Your task to perform on an android device: Search for apple airpods pro on ebay, select the first entry, and add it to the cart. Image 0: 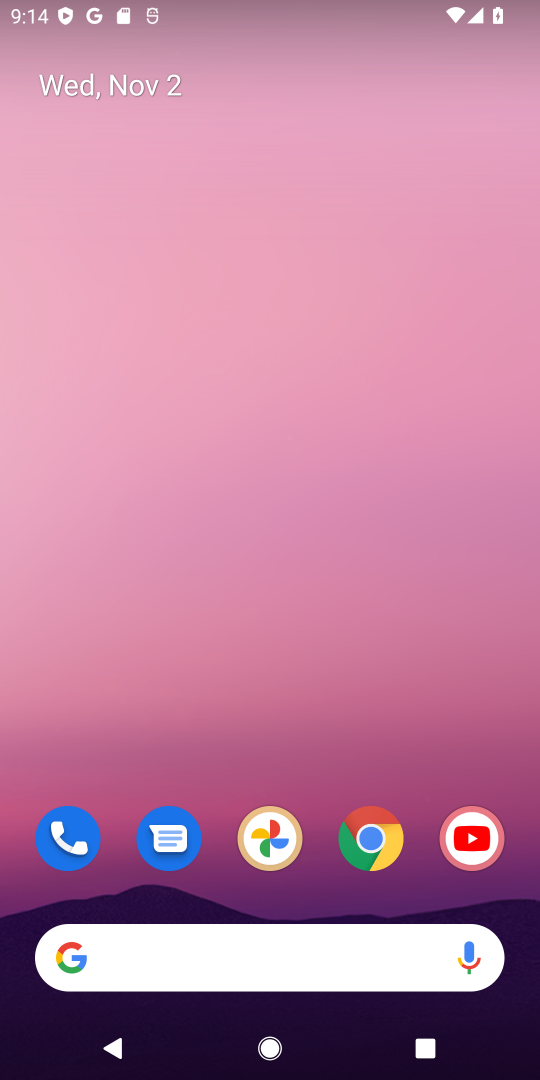
Step 0: click (369, 839)
Your task to perform on an android device: Search for apple airpods pro on ebay, select the first entry, and add it to the cart. Image 1: 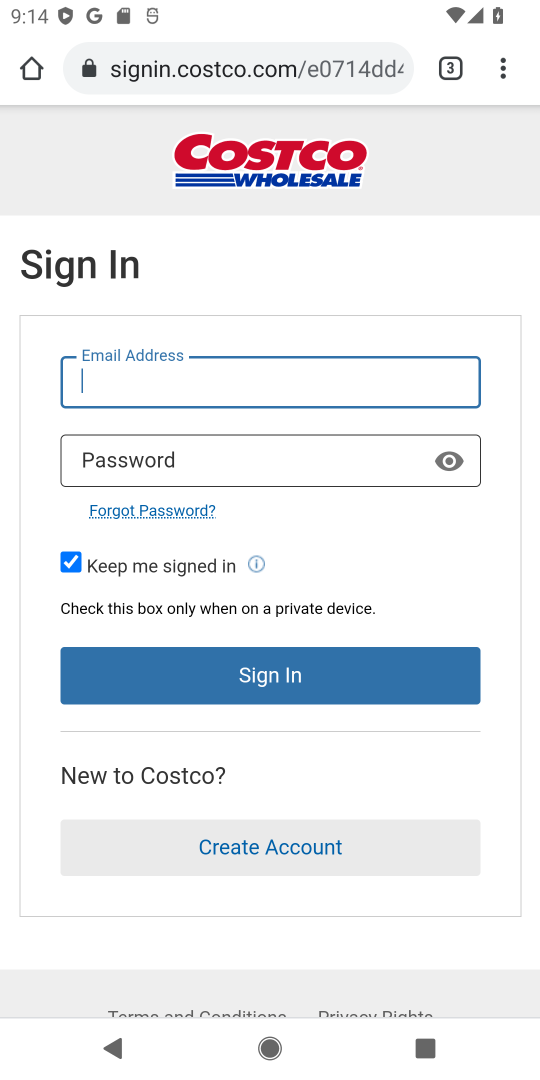
Step 1: click (450, 71)
Your task to perform on an android device: Search for apple airpods pro on ebay, select the first entry, and add it to the cart. Image 2: 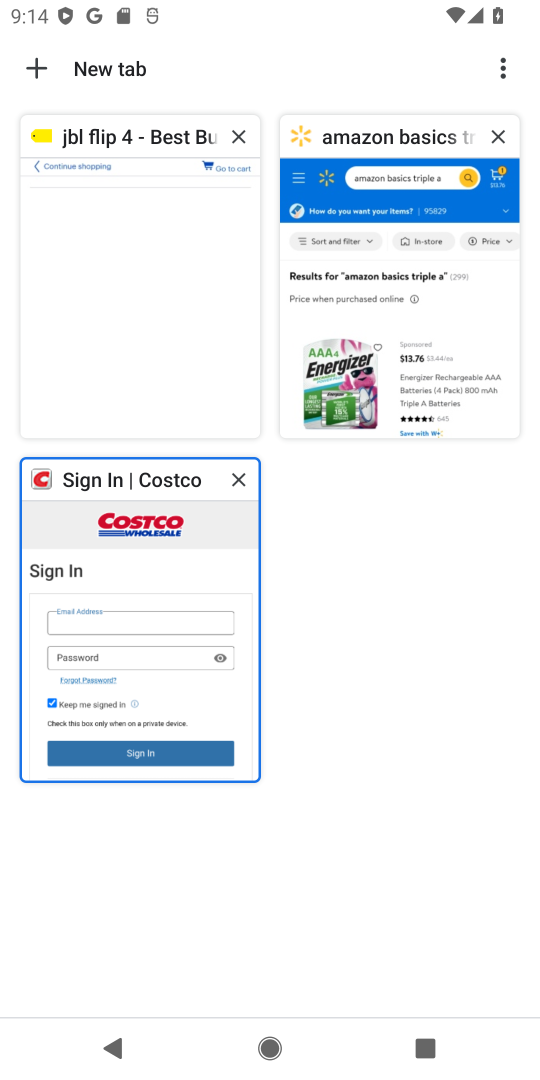
Step 2: click (29, 62)
Your task to perform on an android device: Search for apple airpods pro on ebay, select the first entry, and add it to the cart. Image 3: 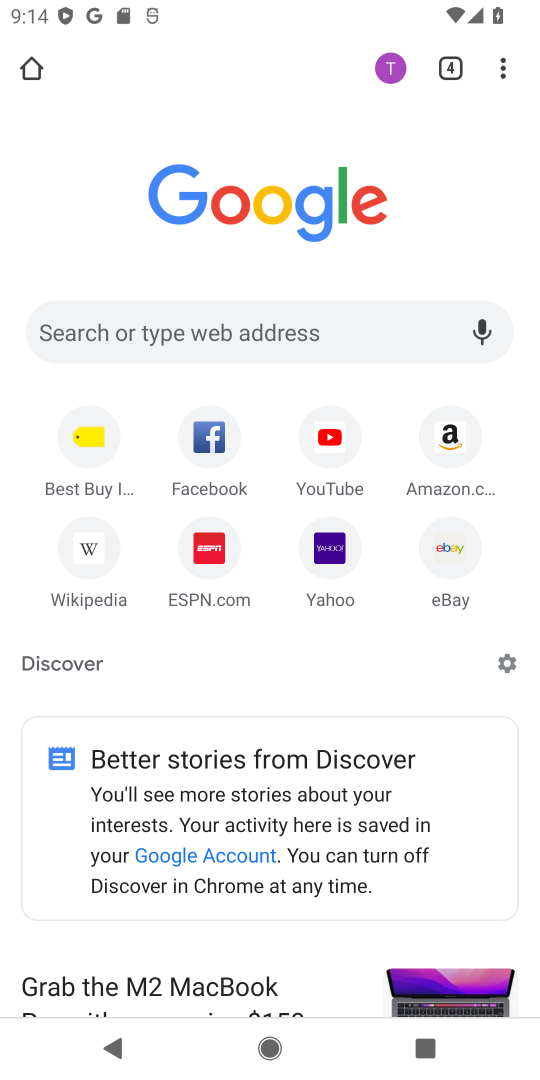
Step 3: click (442, 558)
Your task to perform on an android device: Search for apple airpods pro on ebay, select the first entry, and add it to the cart. Image 4: 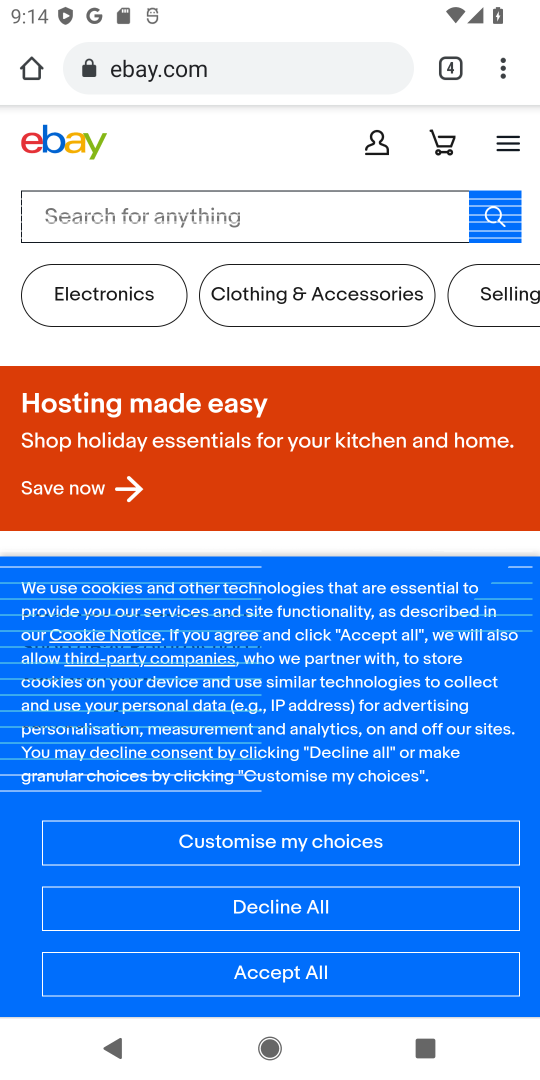
Step 4: click (306, 905)
Your task to perform on an android device: Search for apple airpods pro on ebay, select the first entry, and add it to the cart. Image 5: 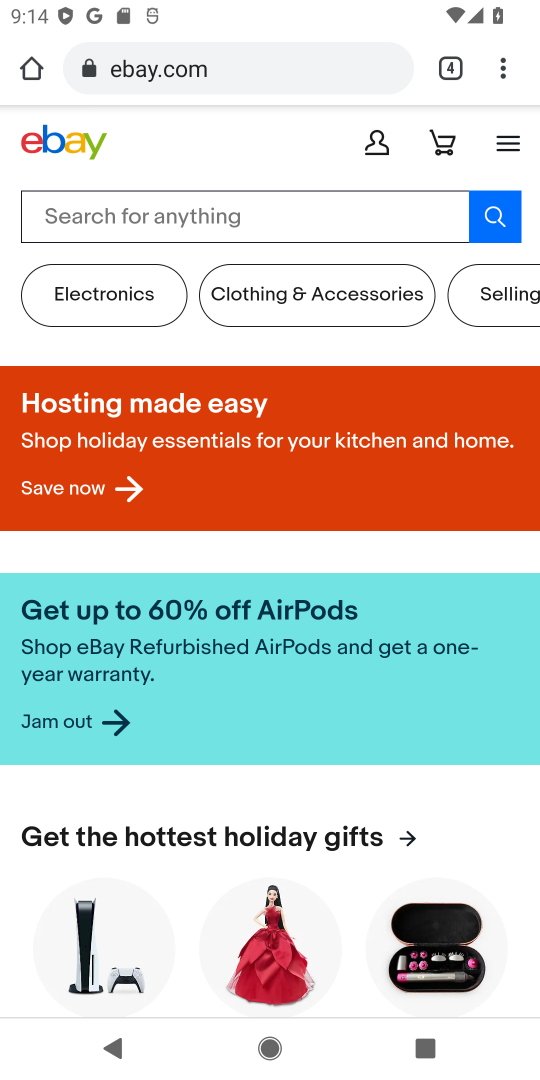
Step 5: click (182, 215)
Your task to perform on an android device: Search for apple airpods pro on ebay, select the first entry, and add it to the cart. Image 6: 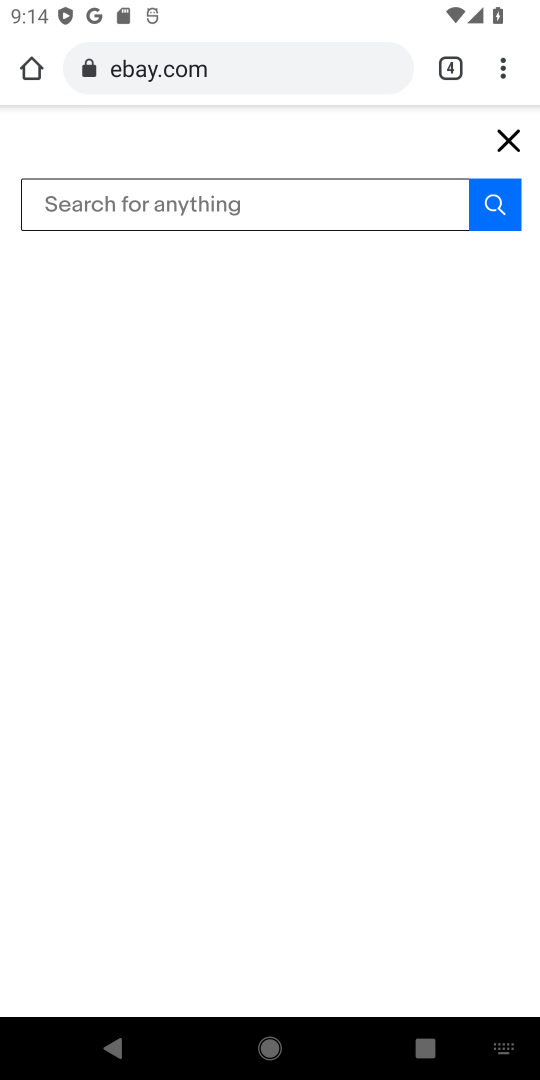
Step 6: type "apple airpods pro"
Your task to perform on an android device: Search for apple airpods pro on ebay, select the first entry, and add it to the cart. Image 7: 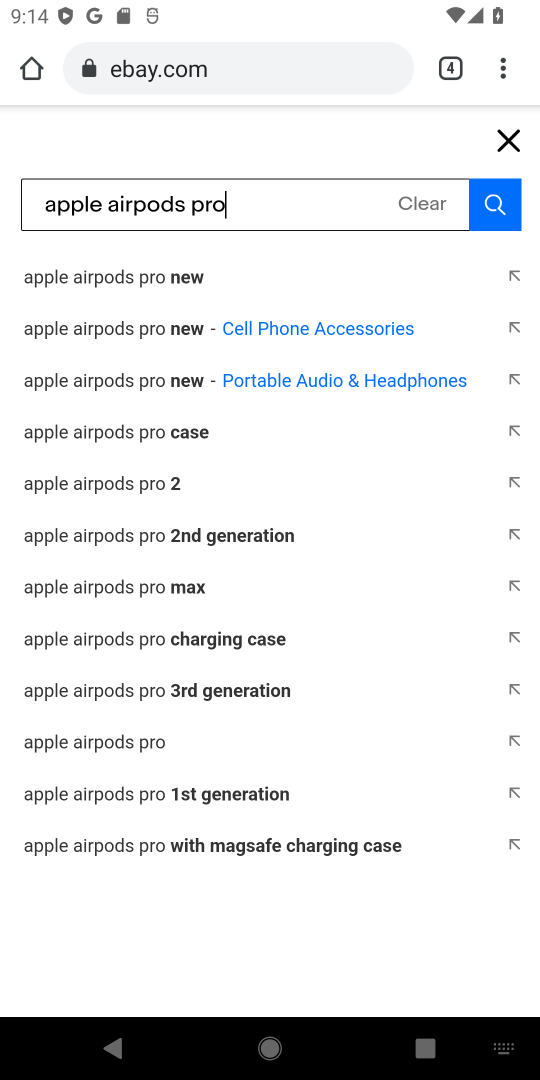
Step 7: click (141, 329)
Your task to perform on an android device: Search for apple airpods pro on ebay, select the first entry, and add it to the cart. Image 8: 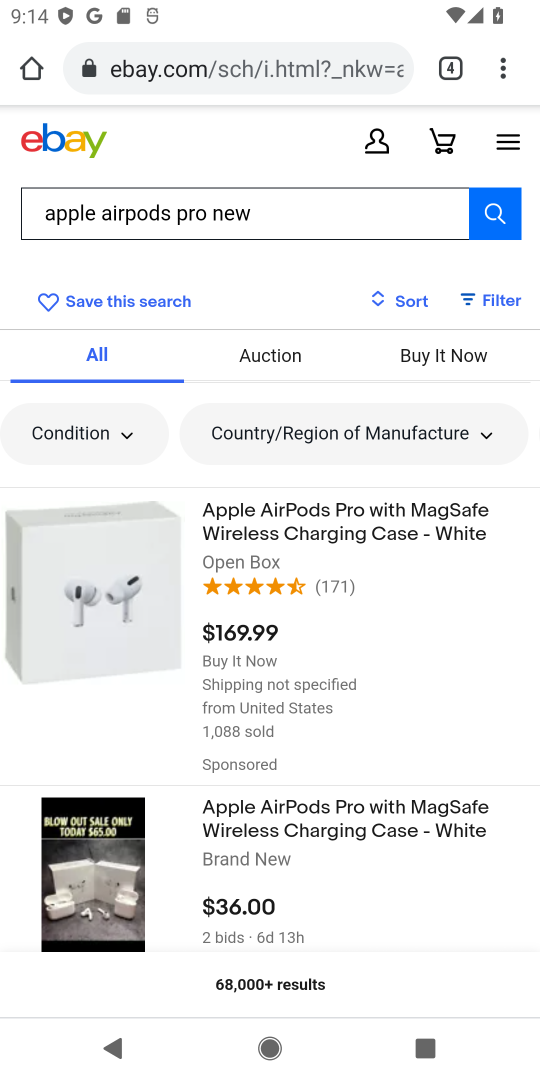
Step 8: click (360, 518)
Your task to perform on an android device: Search for apple airpods pro on ebay, select the first entry, and add it to the cart. Image 9: 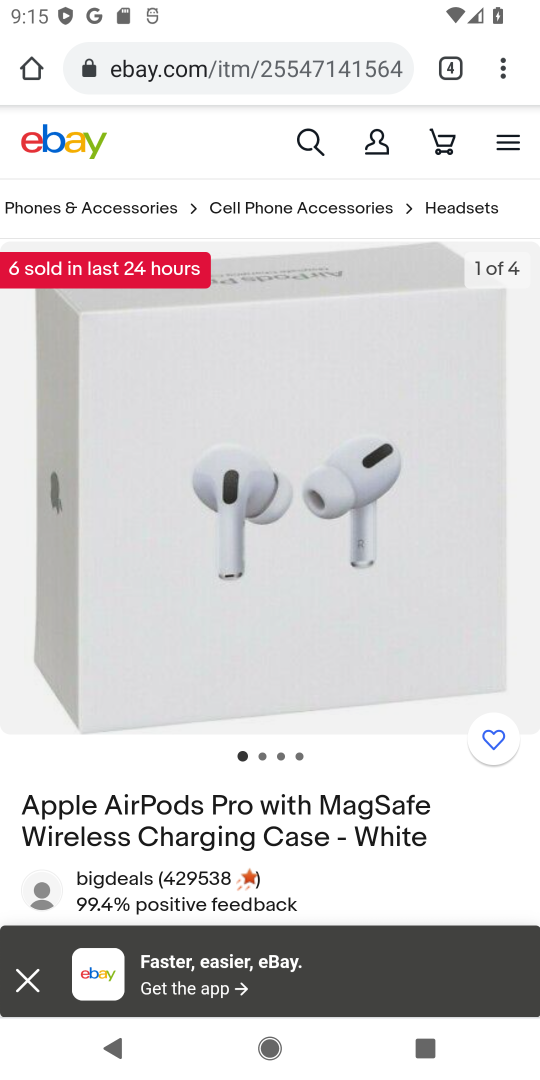
Step 9: drag from (368, 916) to (430, 193)
Your task to perform on an android device: Search for apple airpods pro on ebay, select the first entry, and add it to the cart. Image 10: 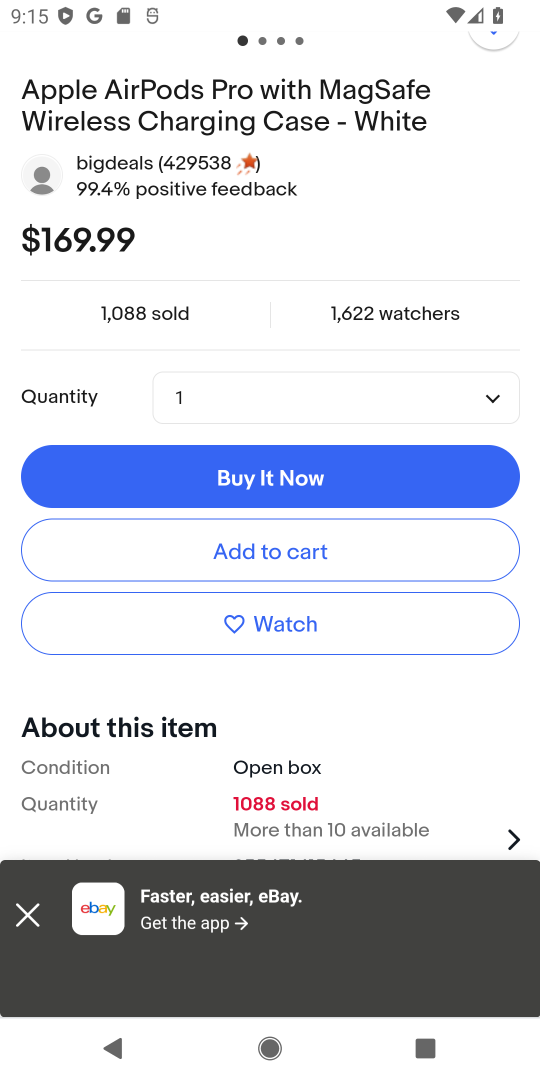
Step 10: click (262, 550)
Your task to perform on an android device: Search for apple airpods pro on ebay, select the first entry, and add it to the cart. Image 11: 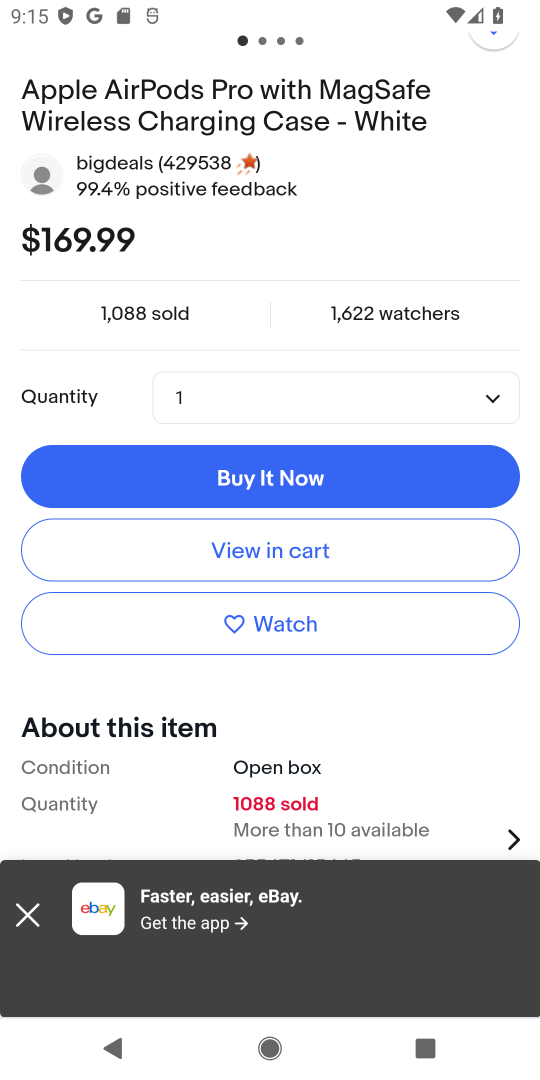
Step 11: task complete